Your task to perform on an android device: Open Wikipedia Image 0: 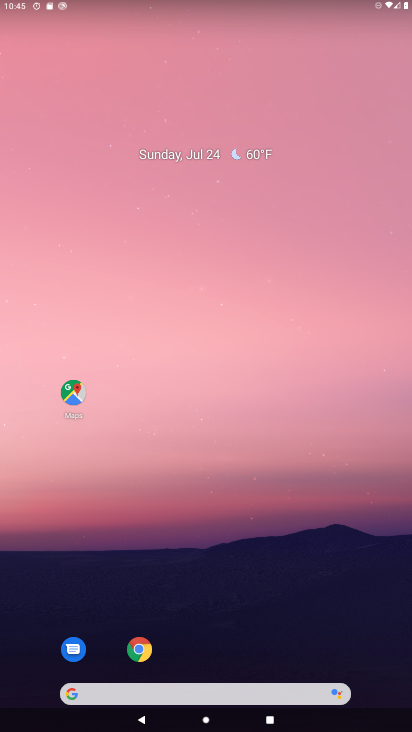
Step 0: drag from (281, 591) to (224, 20)
Your task to perform on an android device: Open Wikipedia Image 1: 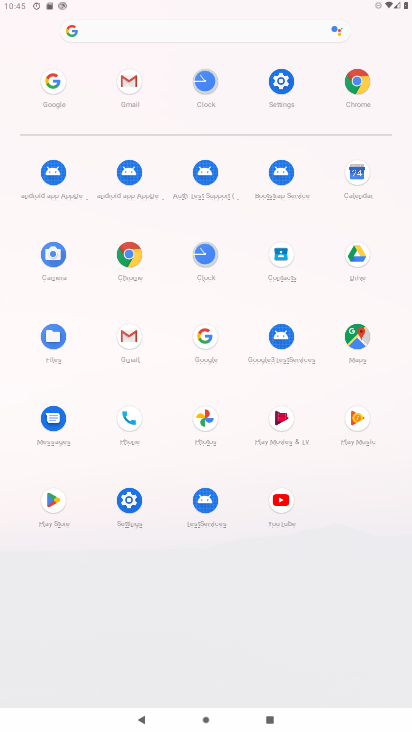
Step 1: click (360, 80)
Your task to perform on an android device: Open Wikipedia Image 2: 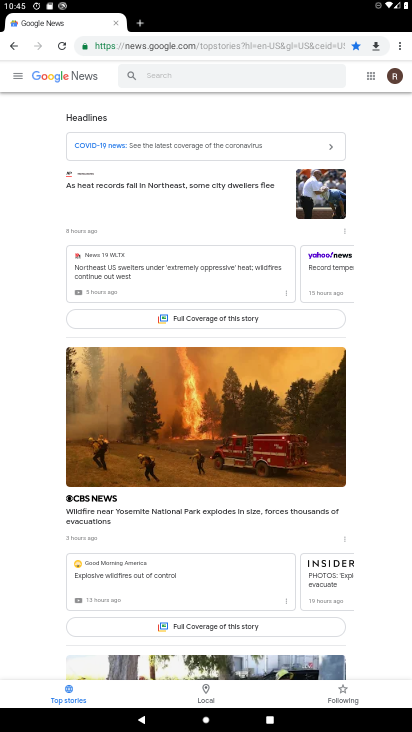
Step 2: click (213, 45)
Your task to perform on an android device: Open Wikipedia Image 3: 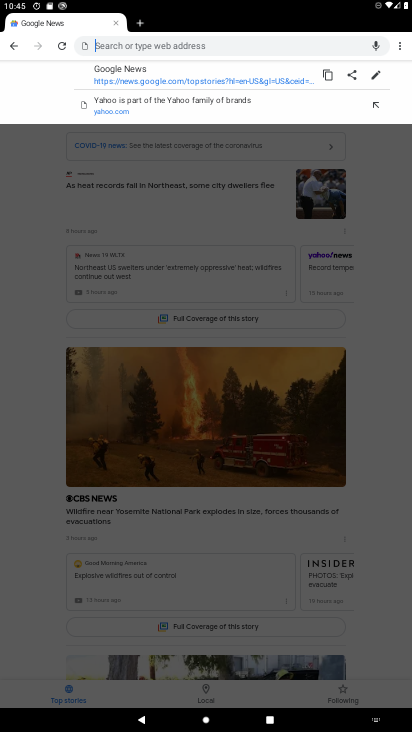
Step 3: type "wukipedia"
Your task to perform on an android device: Open Wikipedia Image 4: 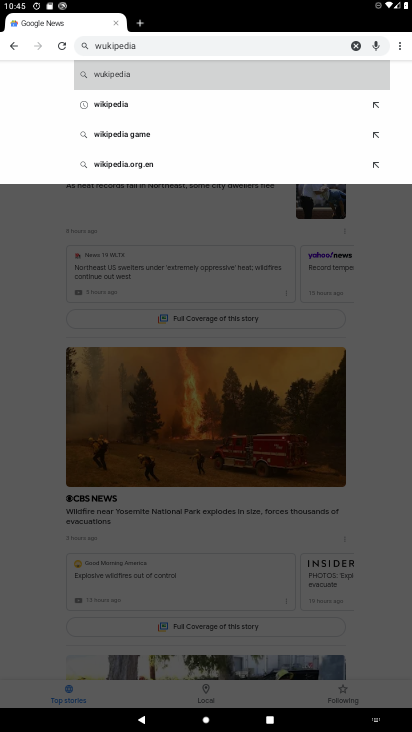
Step 4: click (136, 84)
Your task to perform on an android device: Open Wikipedia Image 5: 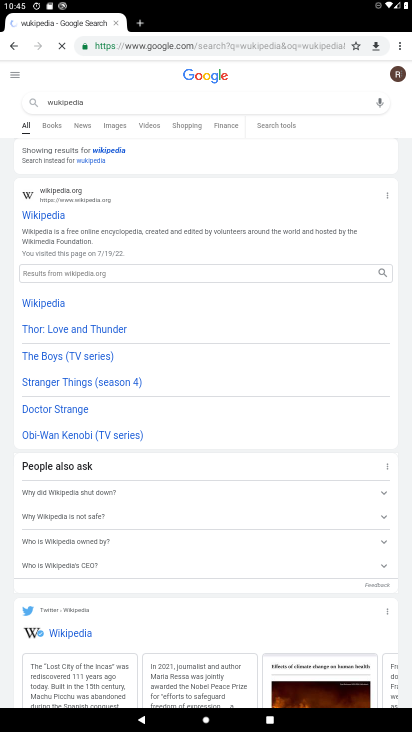
Step 5: click (37, 216)
Your task to perform on an android device: Open Wikipedia Image 6: 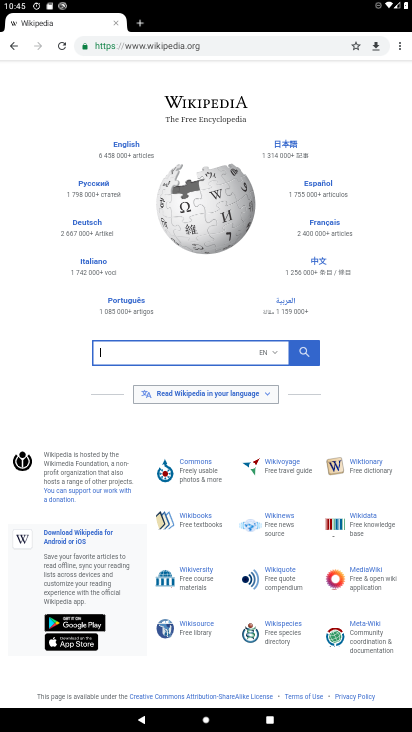
Step 6: task complete